Your task to perform on an android device: toggle wifi Image 0: 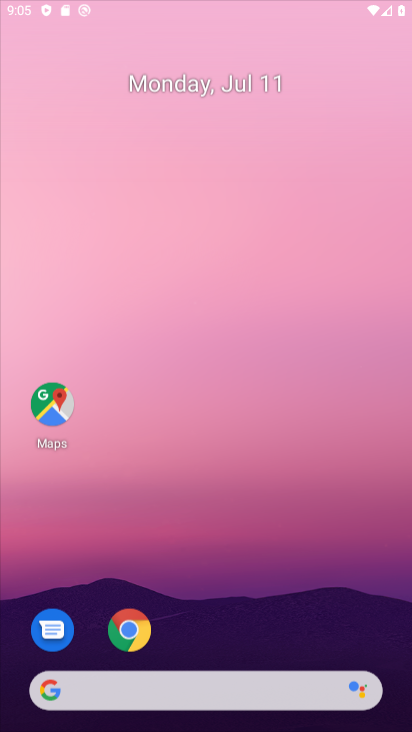
Step 0: press home button
Your task to perform on an android device: toggle wifi Image 1: 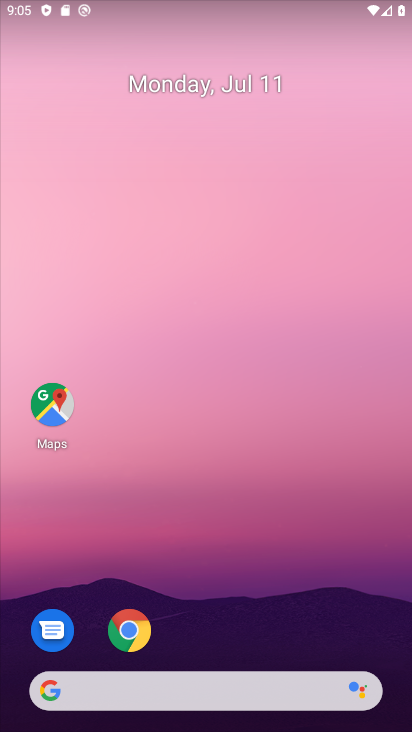
Step 1: drag from (261, 412) to (130, 75)
Your task to perform on an android device: toggle wifi Image 2: 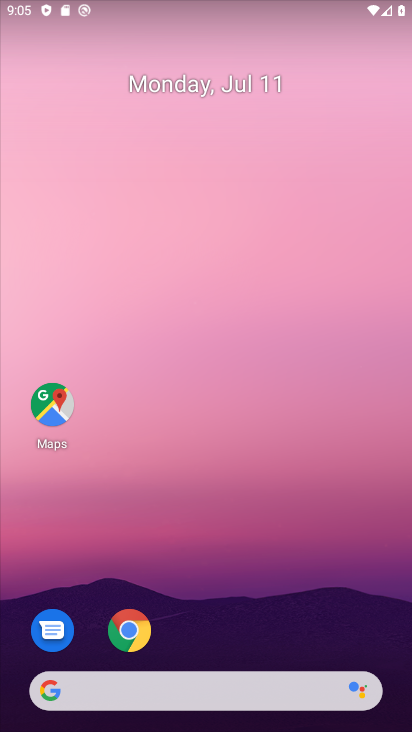
Step 2: drag from (349, 690) to (390, 126)
Your task to perform on an android device: toggle wifi Image 3: 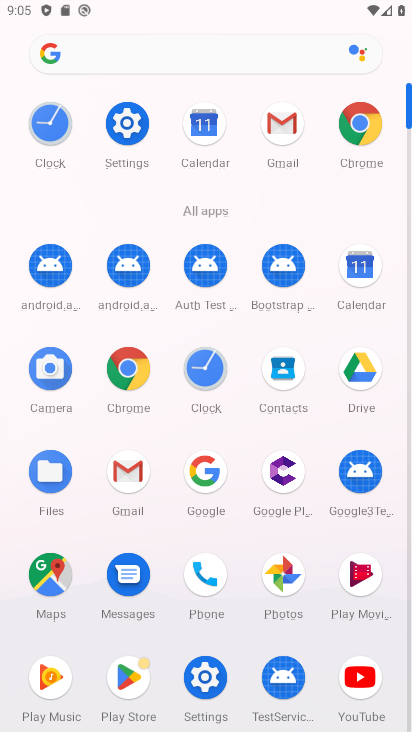
Step 3: click (128, 127)
Your task to perform on an android device: toggle wifi Image 4: 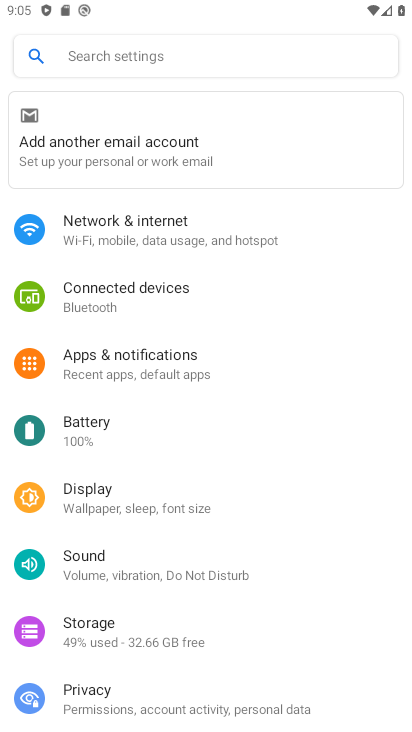
Step 4: click (157, 239)
Your task to perform on an android device: toggle wifi Image 5: 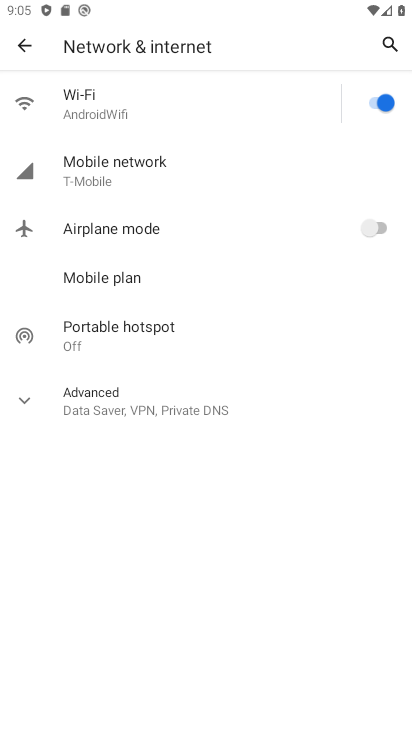
Step 5: click (100, 113)
Your task to perform on an android device: toggle wifi Image 6: 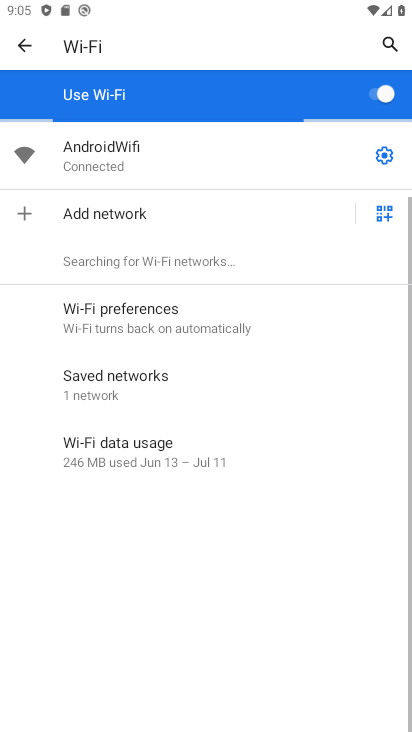
Step 6: click (372, 95)
Your task to perform on an android device: toggle wifi Image 7: 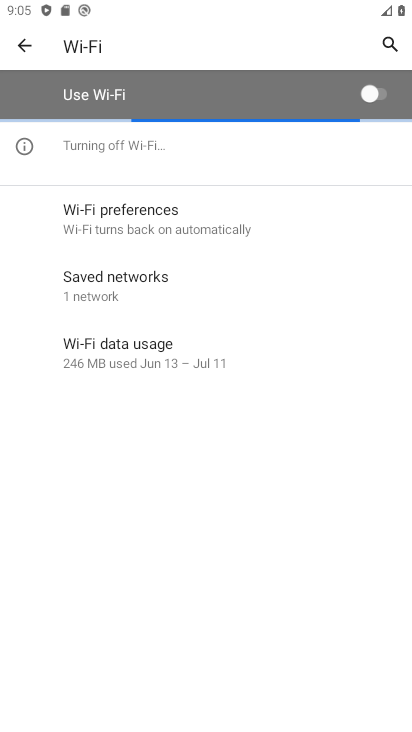
Step 7: task complete